Your task to perform on an android device: Show me popular games on the Play Store Image 0: 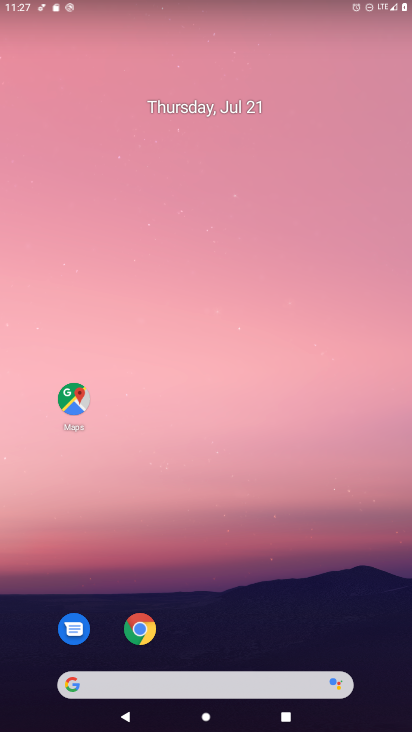
Step 0: drag from (287, 622) to (265, 2)
Your task to perform on an android device: Show me popular games on the Play Store Image 1: 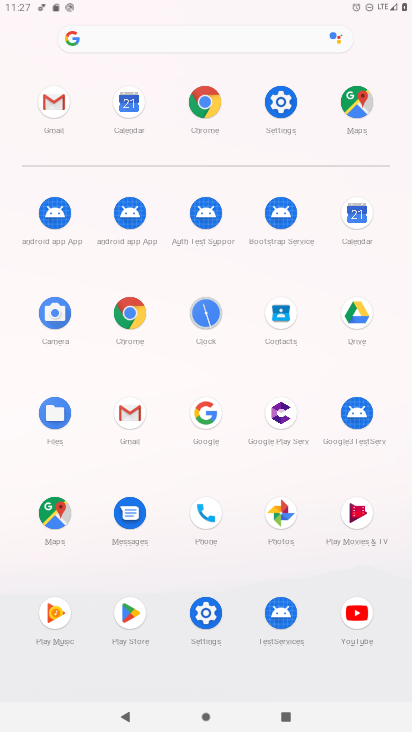
Step 1: click (145, 603)
Your task to perform on an android device: Show me popular games on the Play Store Image 2: 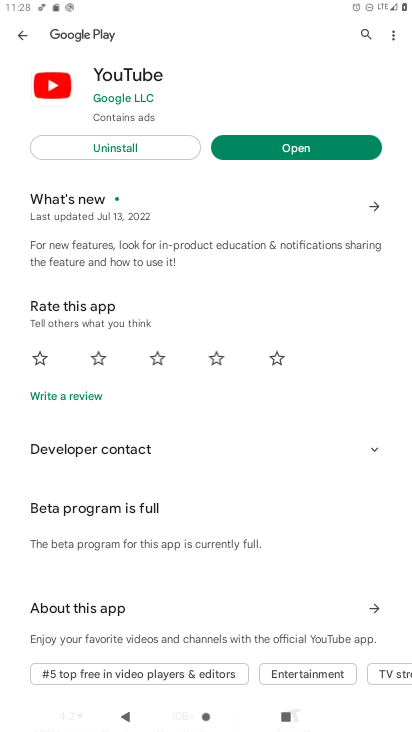
Step 2: press home button
Your task to perform on an android device: Show me popular games on the Play Store Image 3: 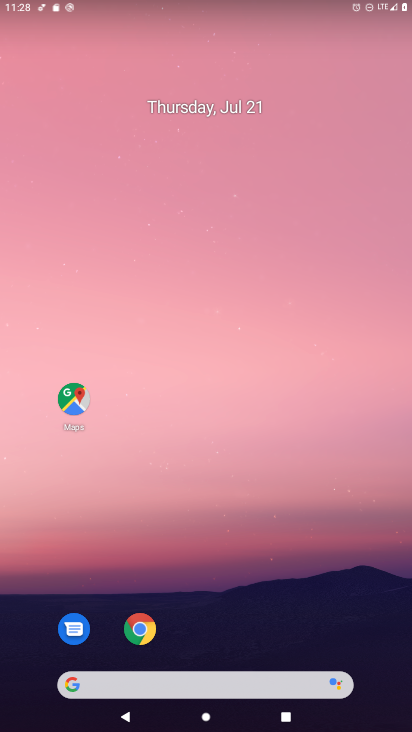
Step 3: drag from (324, 676) to (199, 235)
Your task to perform on an android device: Show me popular games on the Play Store Image 4: 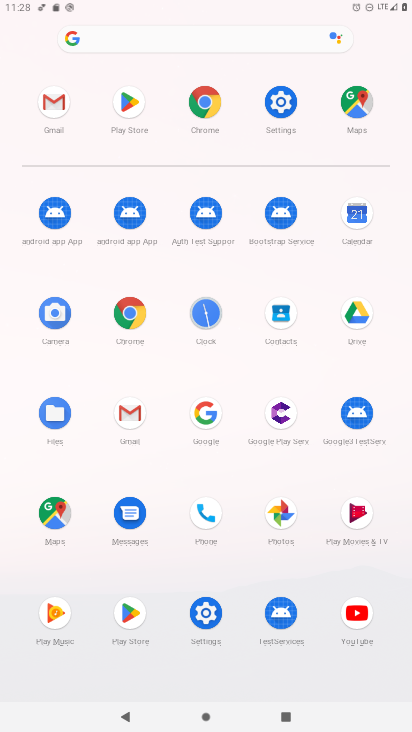
Step 4: click (109, 117)
Your task to perform on an android device: Show me popular games on the Play Store Image 5: 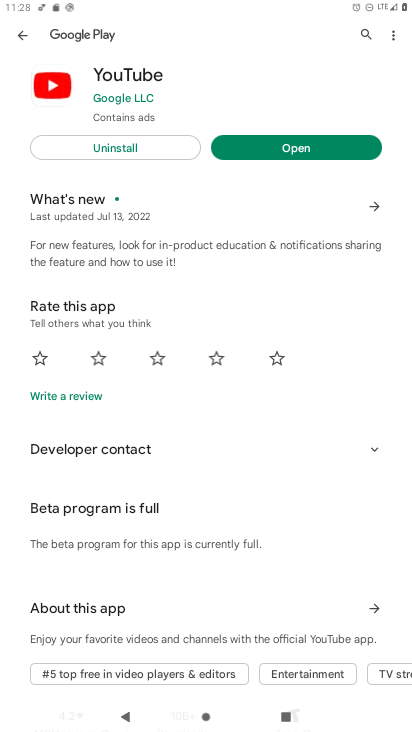
Step 5: click (373, 33)
Your task to perform on an android device: Show me popular games on the Play Store Image 6: 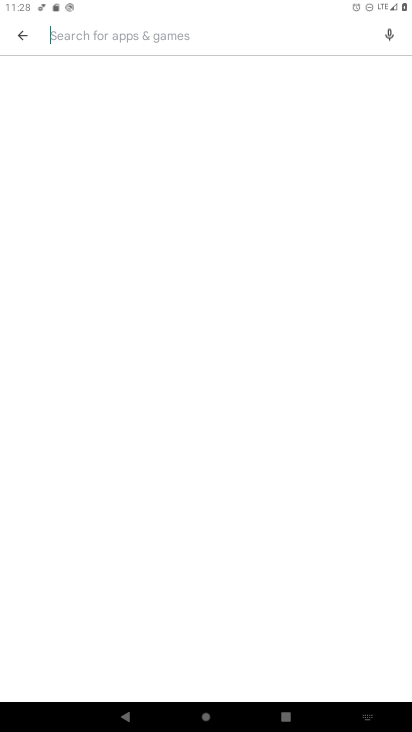
Step 6: type "popular games "
Your task to perform on an android device: Show me popular games on the Play Store Image 7: 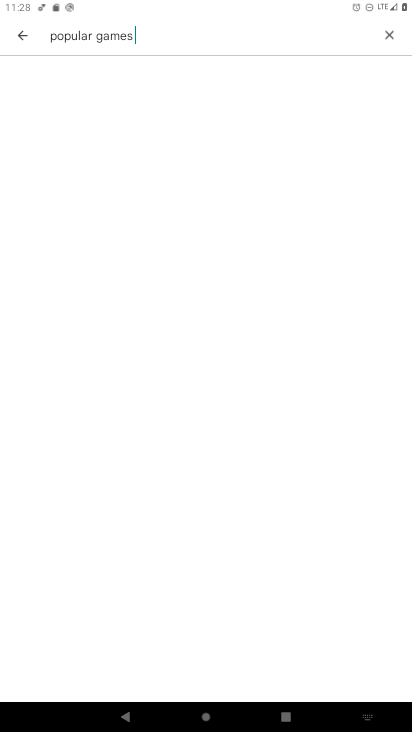
Step 7: type ""
Your task to perform on an android device: Show me popular games on the Play Store Image 8: 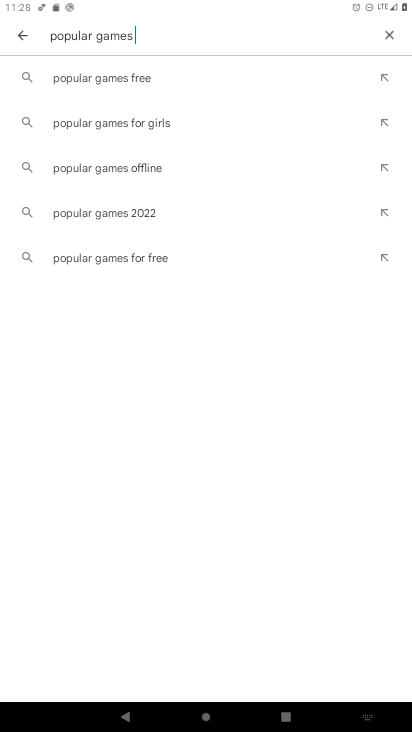
Step 8: click (72, 71)
Your task to perform on an android device: Show me popular games on the Play Store Image 9: 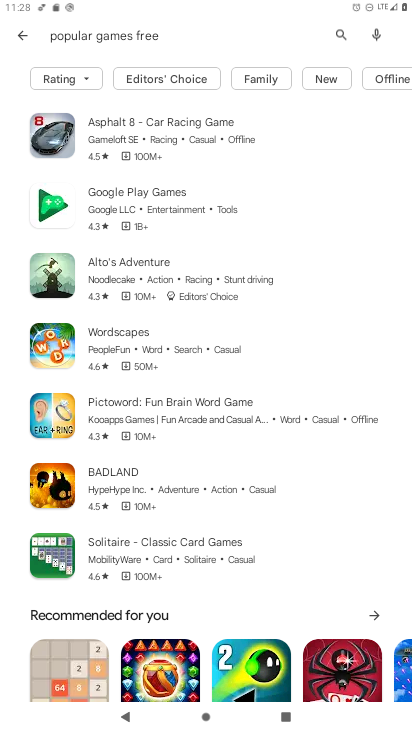
Step 9: task complete